Your task to perform on an android device: change the clock display to show seconds Image 0: 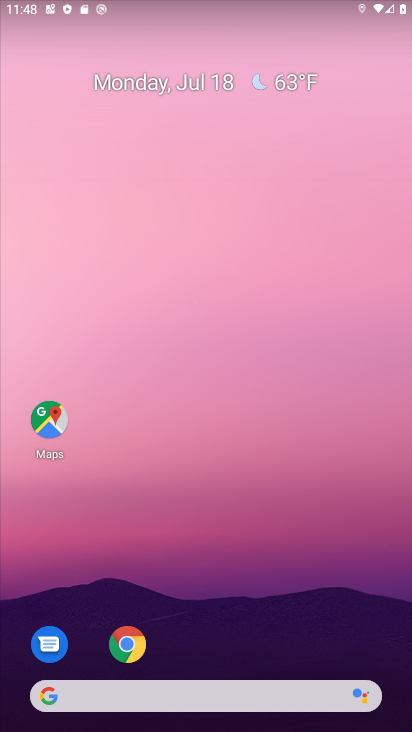
Step 0: drag from (198, 710) to (181, 349)
Your task to perform on an android device: change the clock display to show seconds Image 1: 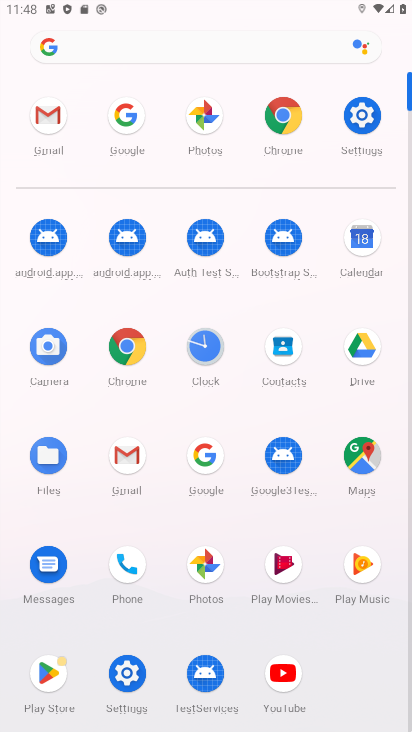
Step 1: click (204, 344)
Your task to perform on an android device: change the clock display to show seconds Image 2: 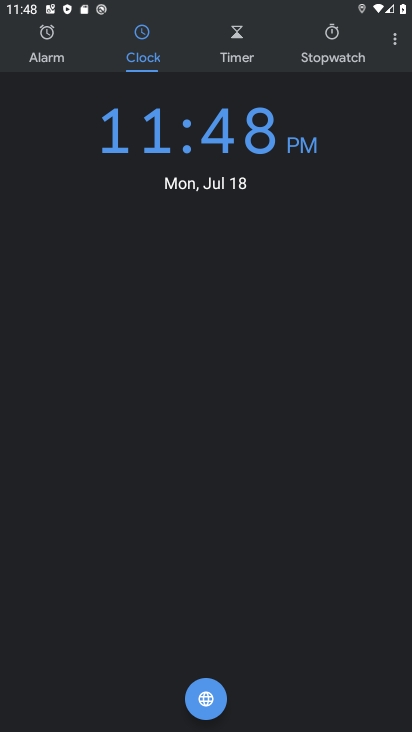
Step 2: click (396, 47)
Your task to perform on an android device: change the clock display to show seconds Image 3: 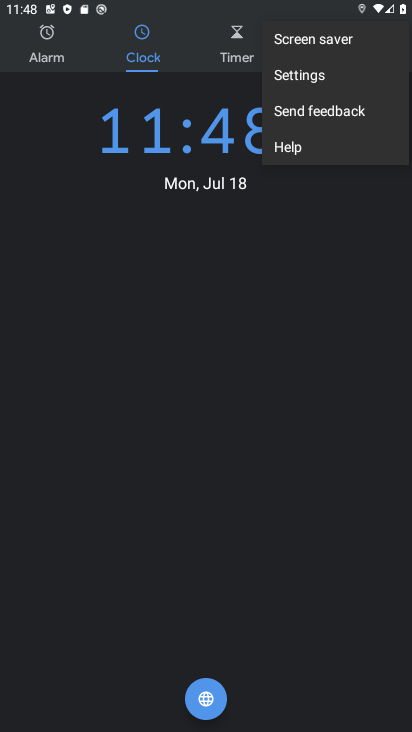
Step 3: click (307, 75)
Your task to perform on an android device: change the clock display to show seconds Image 4: 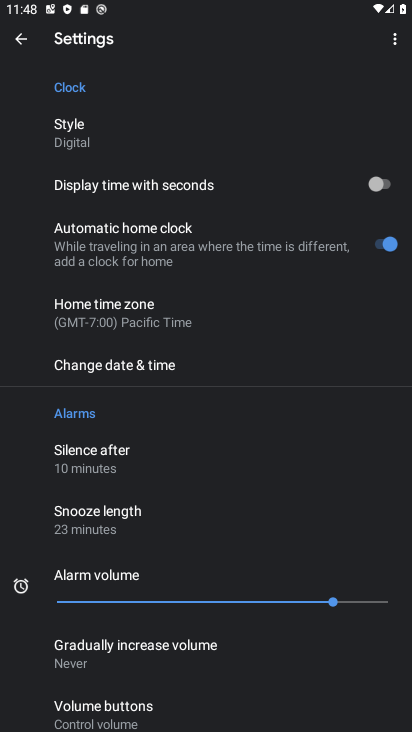
Step 4: drag from (125, 675) to (138, 466)
Your task to perform on an android device: change the clock display to show seconds Image 5: 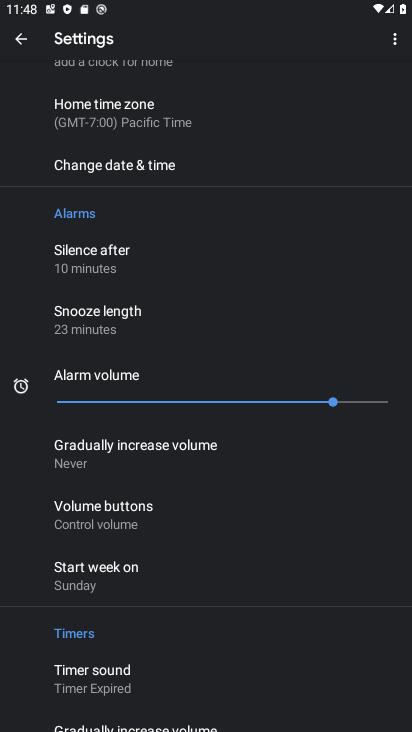
Step 5: drag from (145, 697) to (143, 446)
Your task to perform on an android device: change the clock display to show seconds Image 6: 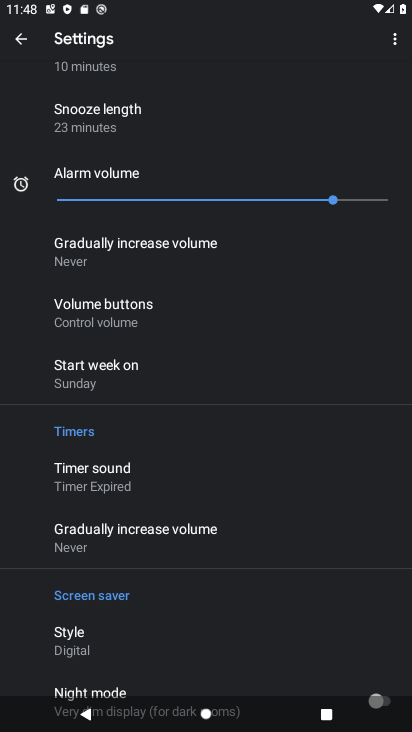
Step 6: drag from (290, 268) to (293, 649)
Your task to perform on an android device: change the clock display to show seconds Image 7: 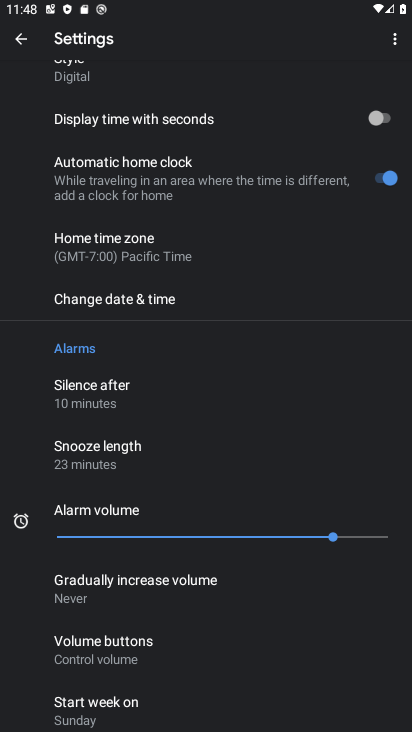
Step 7: drag from (215, 226) to (204, 482)
Your task to perform on an android device: change the clock display to show seconds Image 8: 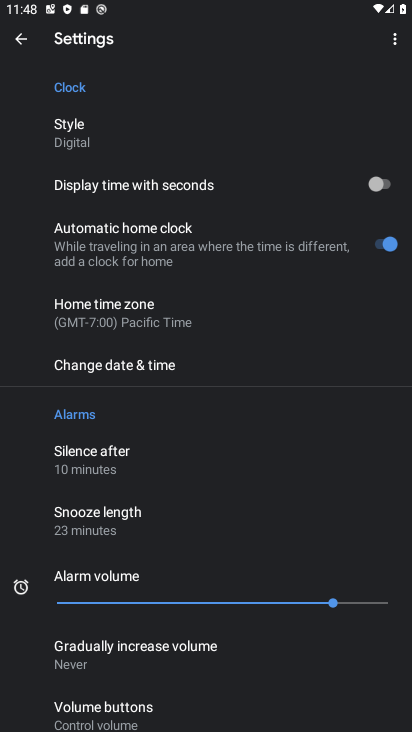
Step 8: click (384, 182)
Your task to perform on an android device: change the clock display to show seconds Image 9: 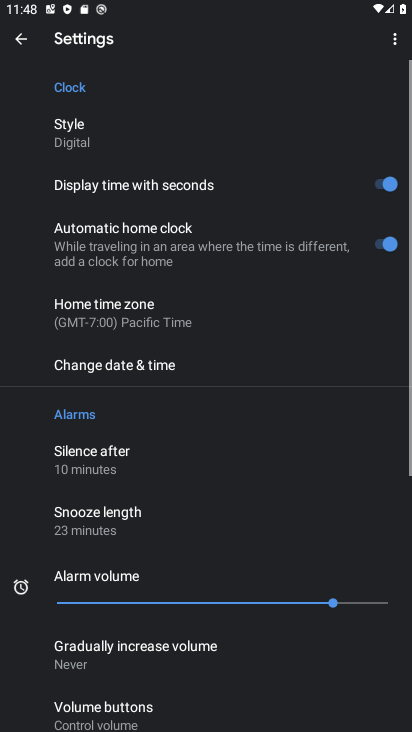
Step 9: task complete